Your task to perform on an android device: open the mobile data screen to see how much data has been used Image 0: 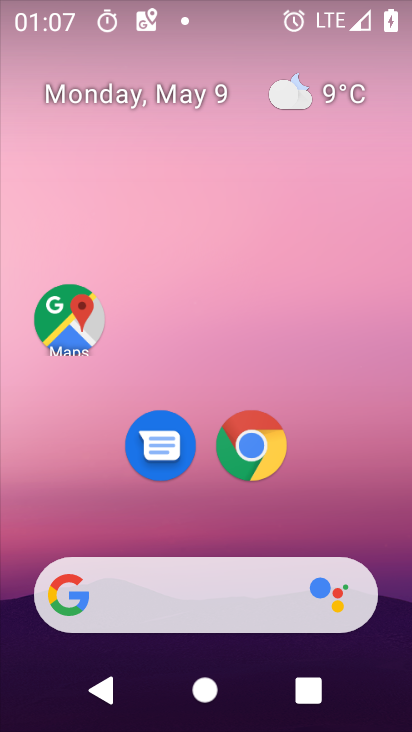
Step 0: drag from (374, 559) to (377, 25)
Your task to perform on an android device: open the mobile data screen to see how much data has been used Image 1: 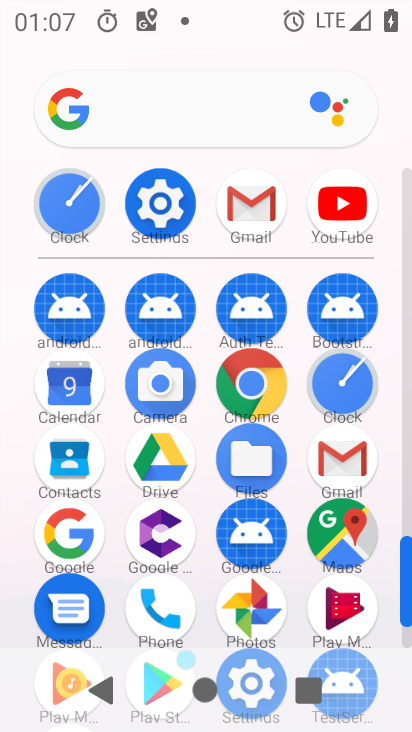
Step 1: click (166, 204)
Your task to perform on an android device: open the mobile data screen to see how much data has been used Image 2: 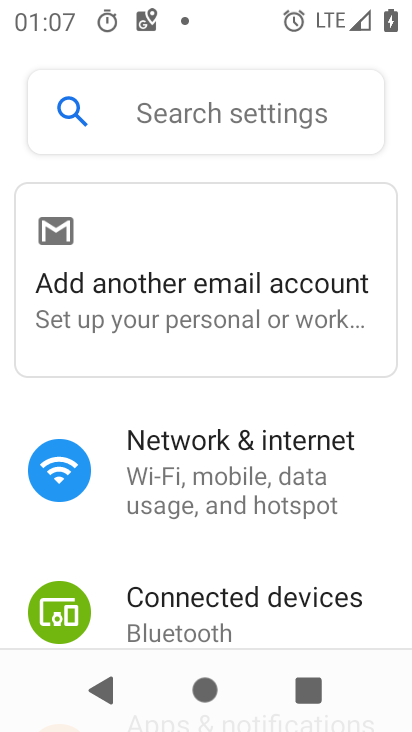
Step 2: click (230, 484)
Your task to perform on an android device: open the mobile data screen to see how much data has been used Image 3: 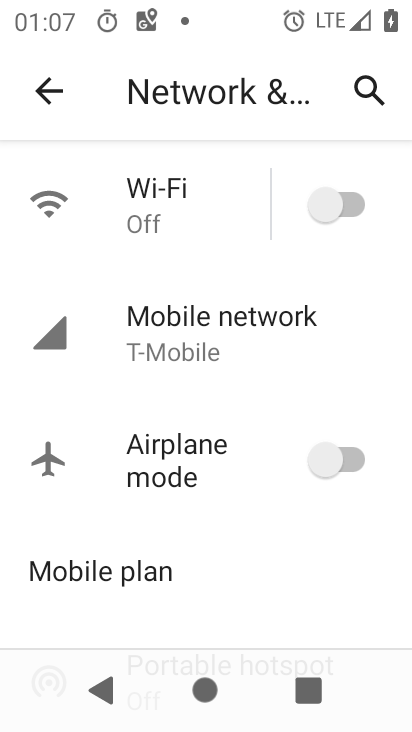
Step 3: click (163, 332)
Your task to perform on an android device: open the mobile data screen to see how much data has been used Image 4: 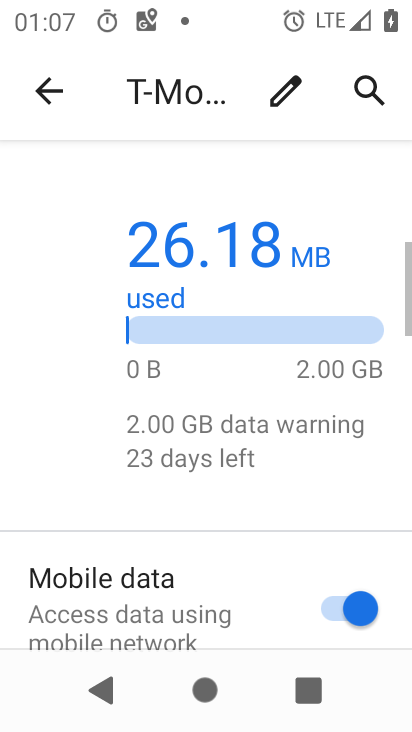
Step 4: drag from (231, 565) to (235, 207)
Your task to perform on an android device: open the mobile data screen to see how much data has been used Image 5: 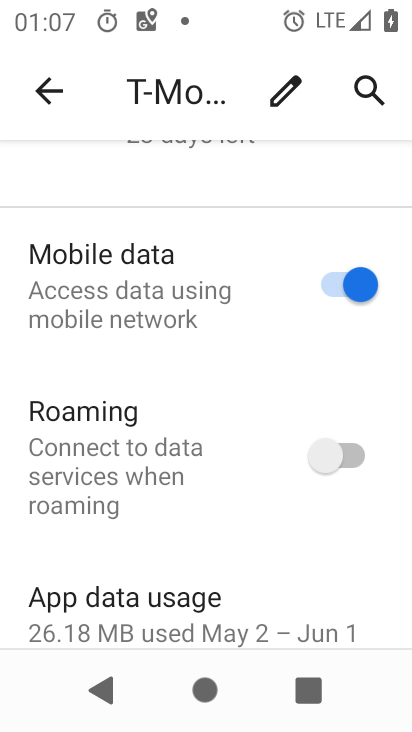
Step 5: drag from (203, 482) to (223, 243)
Your task to perform on an android device: open the mobile data screen to see how much data has been used Image 6: 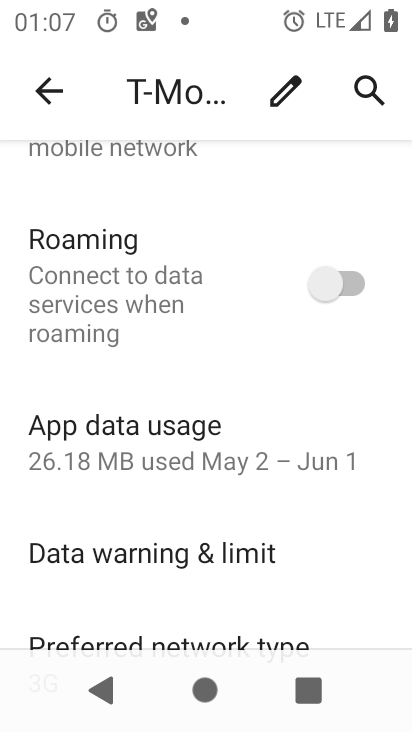
Step 6: click (176, 446)
Your task to perform on an android device: open the mobile data screen to see how much data has been used Image 7: 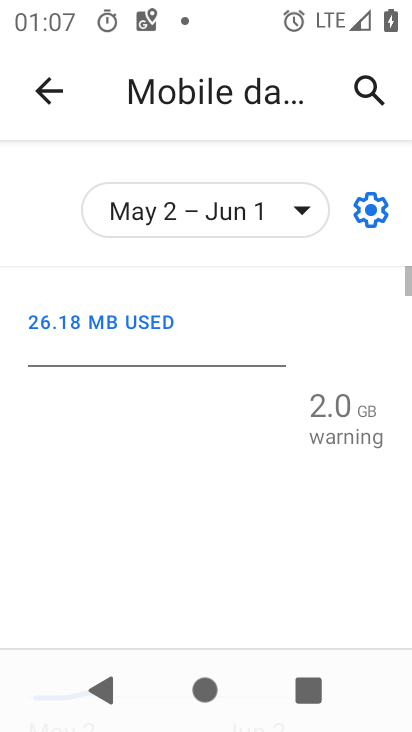
Step 7: task complete